Your task to perform on an android device: Open Amazon Image 0: 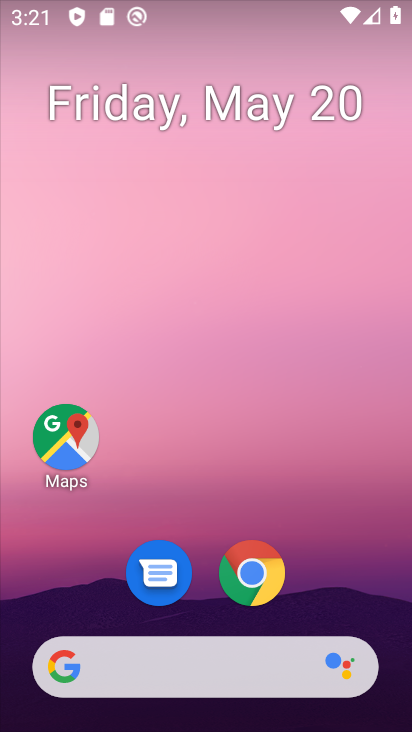
Step 0: drag from (364, 593) to (339, 233)
Your task to perform on an android device: Open Amazon Image 1: 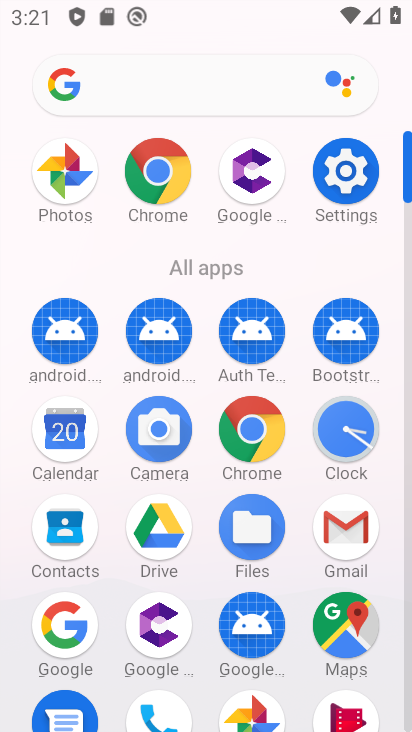
Step 1: click (269, 418)
Your task to perform on an android device: Open Amazon Image 2: 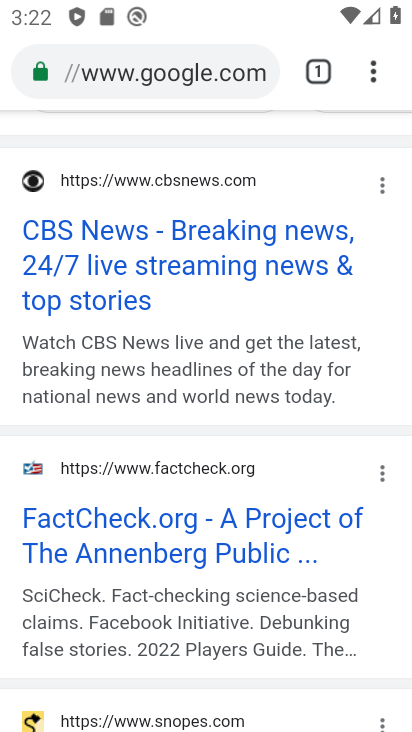
Step 2: click (222, 81)
Your task to perform on an android device: Open Amazon Image 3: 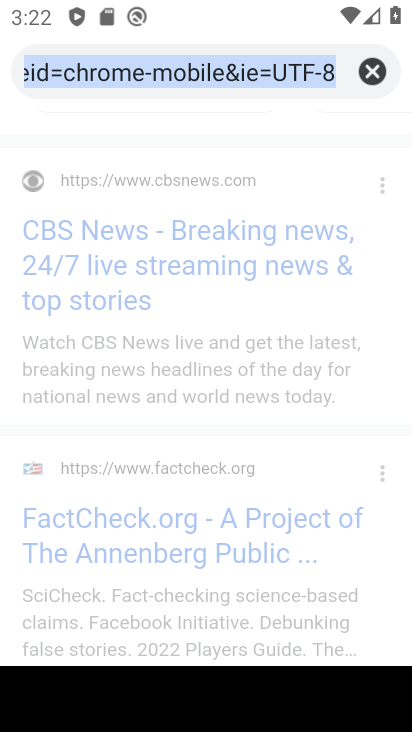
Step 3: click (361, 79)
Your task to perform on an android device: Open Amazon Image 4: 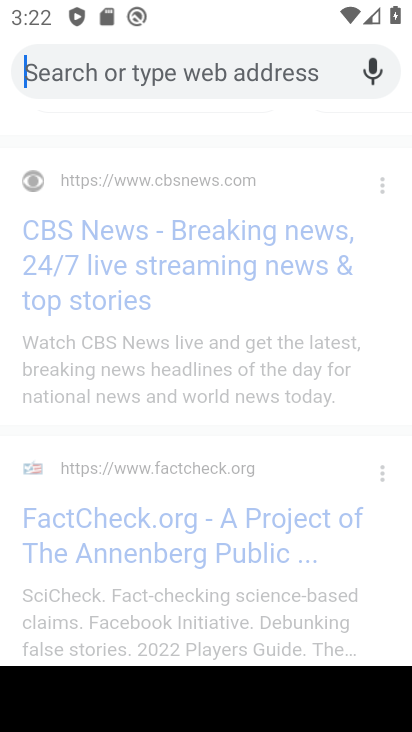
Step 4: type "amazon "
Your task to perform on an android device: Open Amazon Image 5: 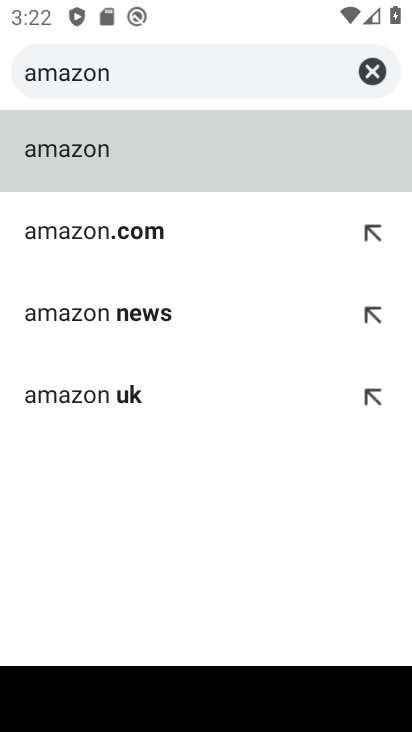
Step 5: click (148, 147)
Your task to perform on an android device: Open Amazon Image 6: 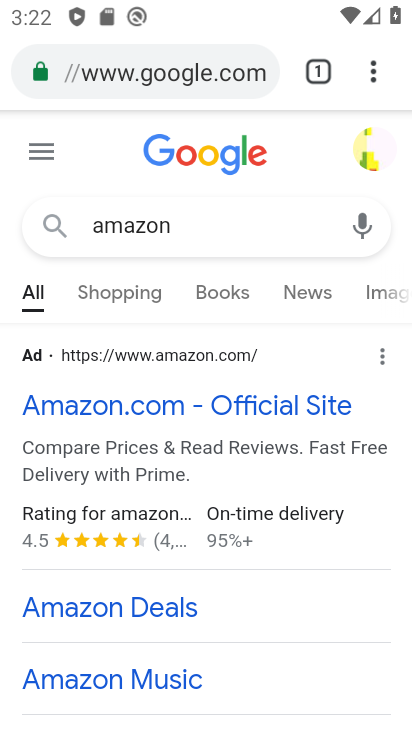
Step 6: task complete